Your task to perform on an android device: Check the weather Image 0: 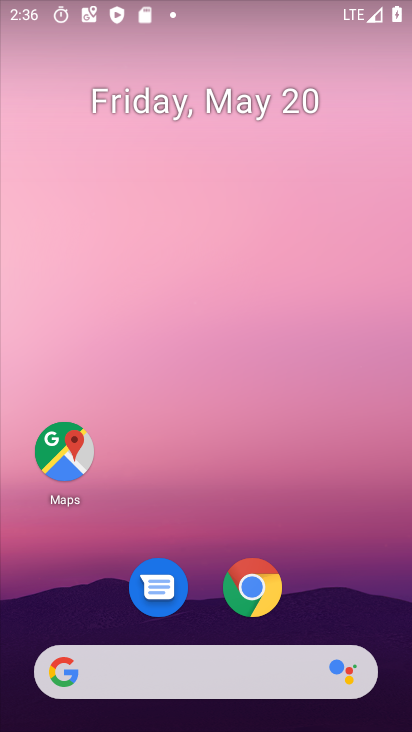
Step 0: click (259, 587)
Your task to perform on an android device: Check the weather Image 1: 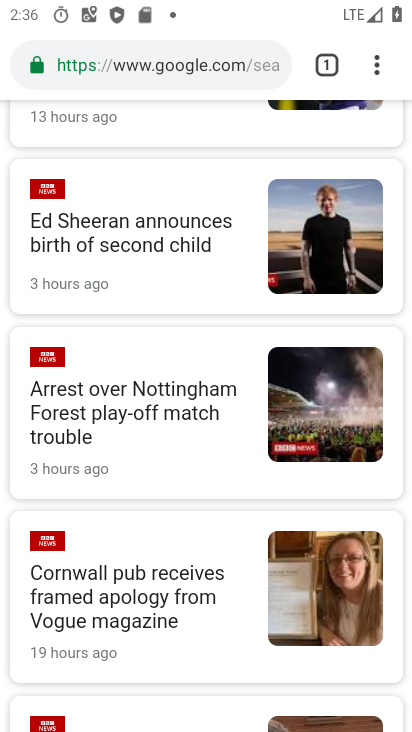
Step 1: click (191, 79)
Your task to perform on an android device: Check the weather Image 2: 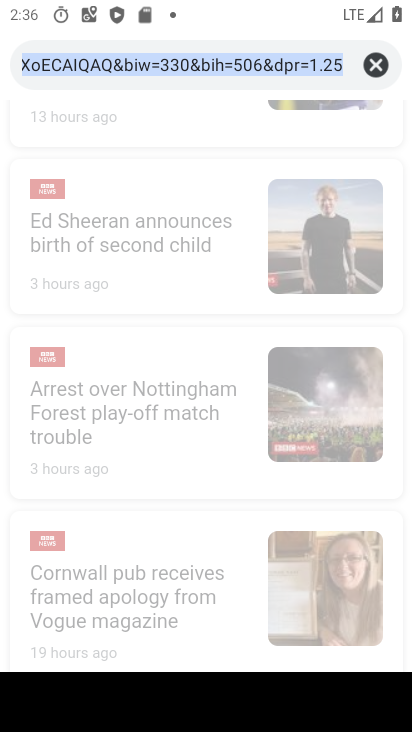
Step 2: type "weather"
Your task to perform on an android device: Check the weather Image 3: 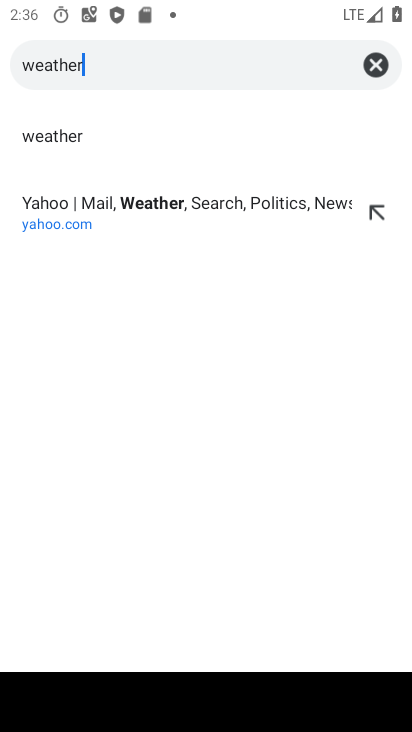
Step 3: click (383, 111)
Your task to perform on an android device: Check the weather Image 4: 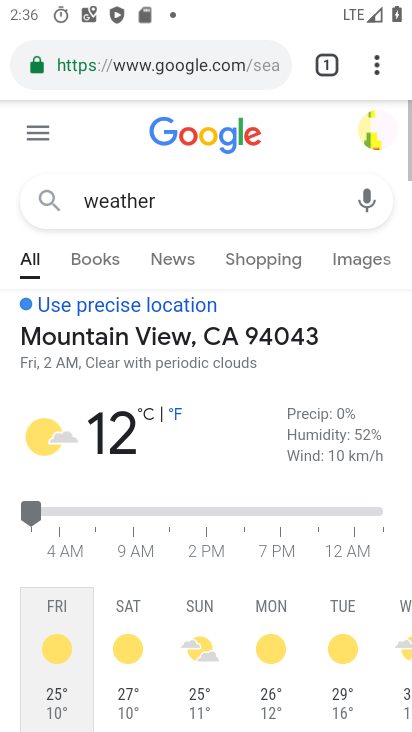
Step 4: task complete